Your task to perform on an android device: Go to wifi settings Image 0: 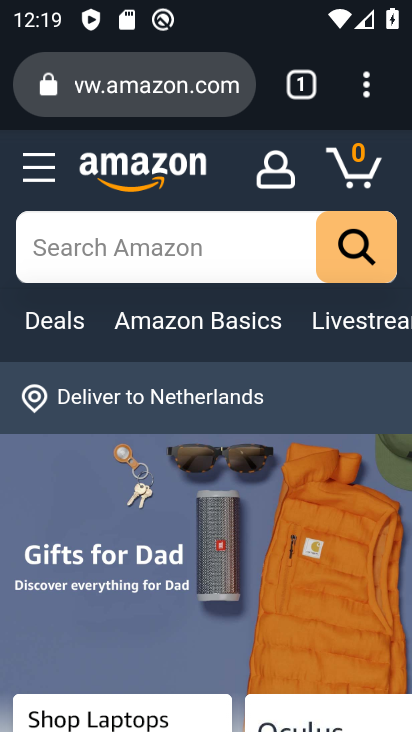
Step 0: press home button
Your task to perform on an android device: Go to wifi settings Image 1: 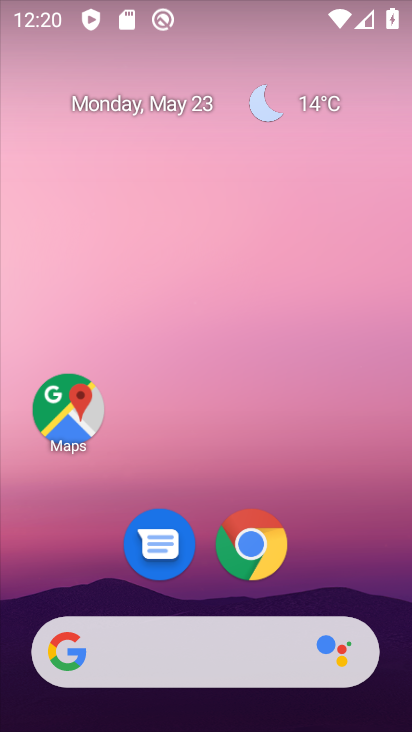
Step 1: drag from (341, 547) to (289, 77)
Your task to perform on an android device: Go to wifi settings Image 2: 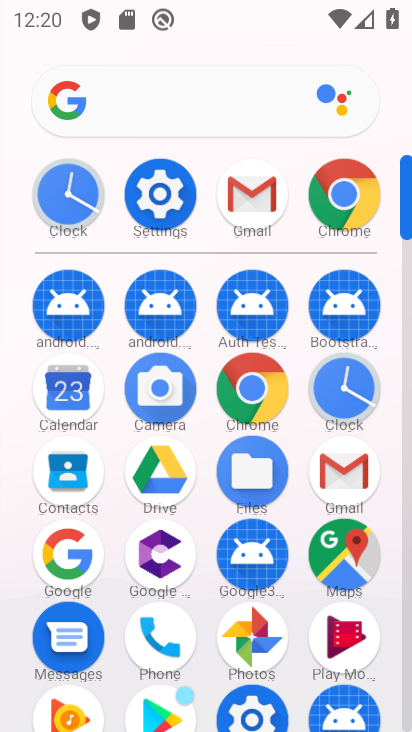
Step 2: click (163, 196)
Your task to perform on an android device: Go to wifi settings Image 3: 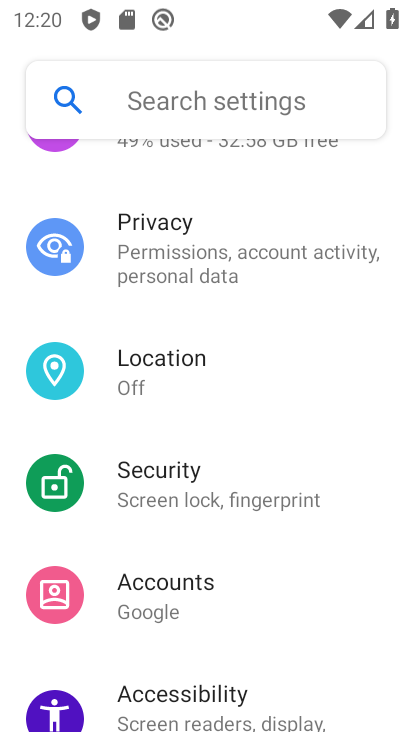
Step 3: drag from (252, 215) to (274, 702)
Your task to perform on an android device: Go to wifi settings Image 4: 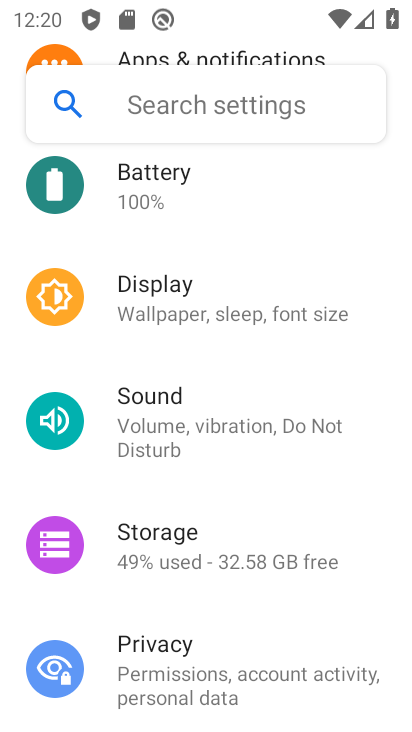
Step 4: drag from (221, 315) to (236, 701)
Your task to perform on an android device: Go to wifi settings Image 5: 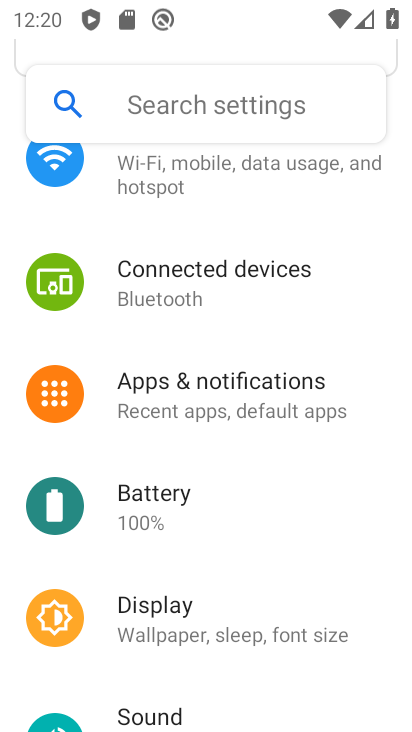
Step 5: click (175, 181)
Your task to perform on an android device: Go to wifi settings Image 6: 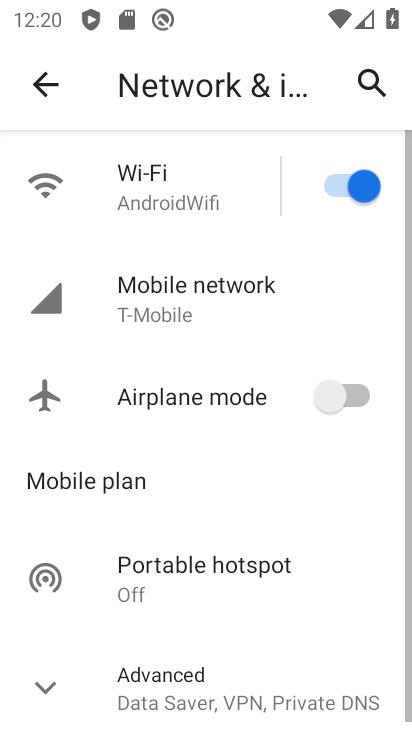
Step 6: click (200, 192)
Your task to perform on an android device: Go to wifi settings Image 7: 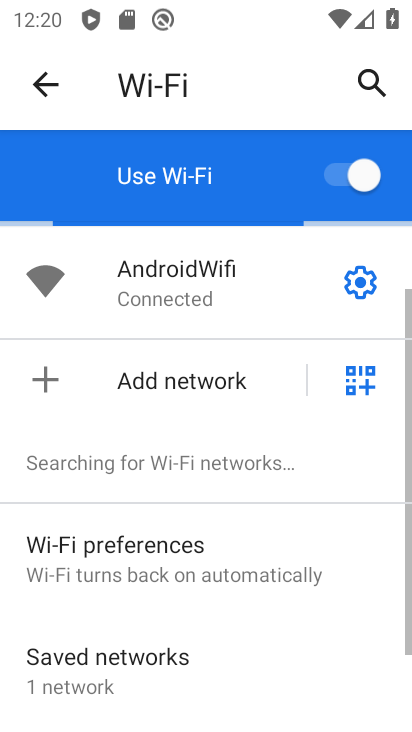
Step 7: click (370, 266)
Your task to perform on an android device: Go to wifi settings Image 8: 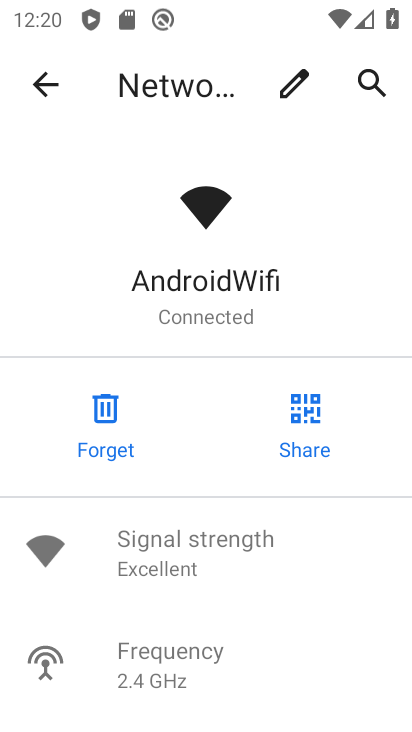
Step 8: task complete